Your task to perform on an android device: Go to accessibility settings Image 0: 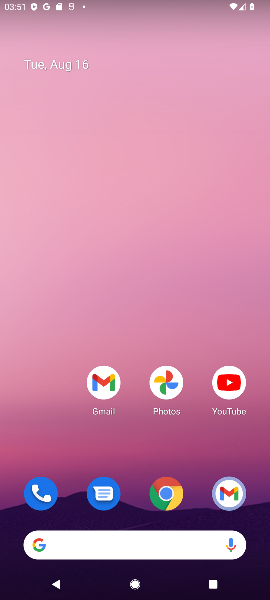
Step 0: press home button
Your task to perform on an android device: Go to accessibility settings Image 1: 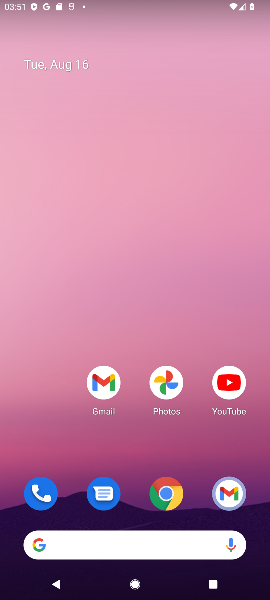
Step 1: drag from (67, 473) to (101, 116)
Your task to perform on an android device: Go to accessibility settings Image 2: 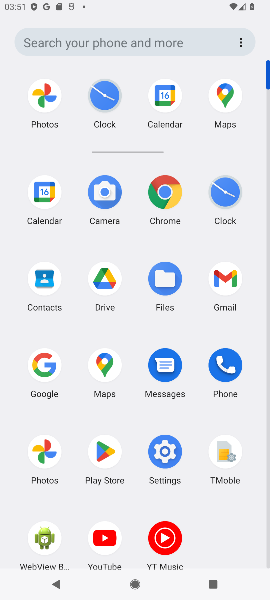
Step 2: click (163, 452)
Your task to perform on an android device: Go to accessibility settings Image 3: 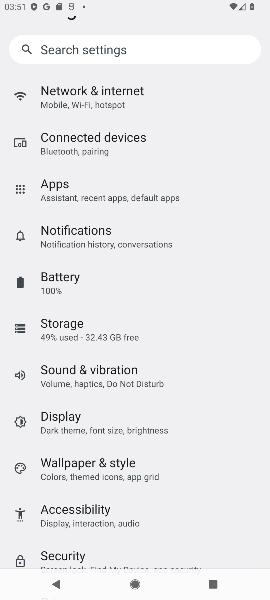
Step 3: drag from (215, 472) to (217, 327)
Your task to perform on an android device: Go to accessibility settings Image 4: 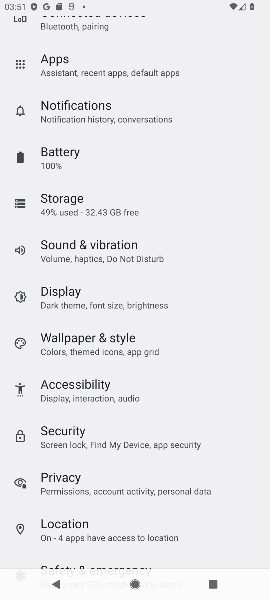
Step 4: drag from (226, 489) to (224, 270)
Your task to perform on an android device: Go to accessibility settings Image 5: 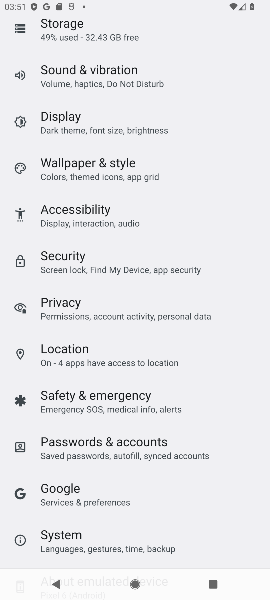
Step 5: click (143, 219)
Your task to perform on an android device: Go to accessibility settings Image 6: 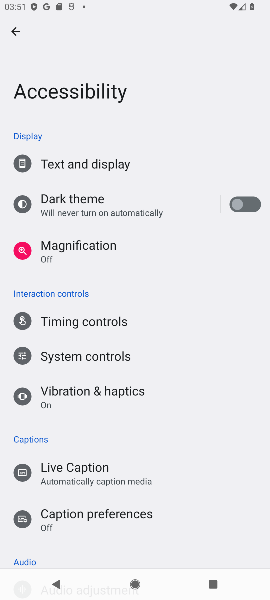
Step 6: task complete